Your task to perform on an android device: turn vacation reply on in the gmail app Image 0: 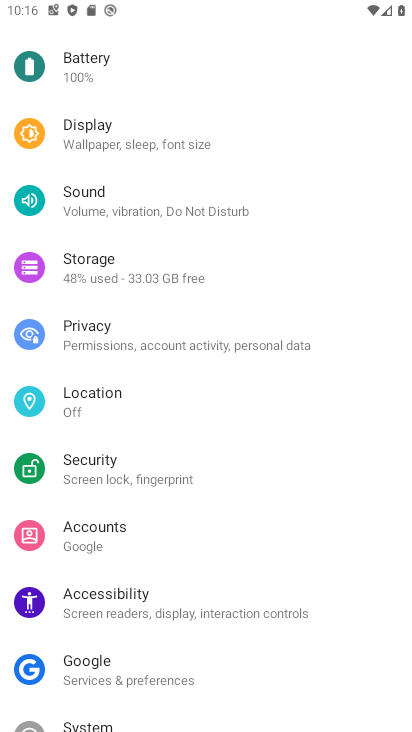
Step 0: press home button
Your task to perform on an android device: turn vacation reply on in the gmail app Image 1: 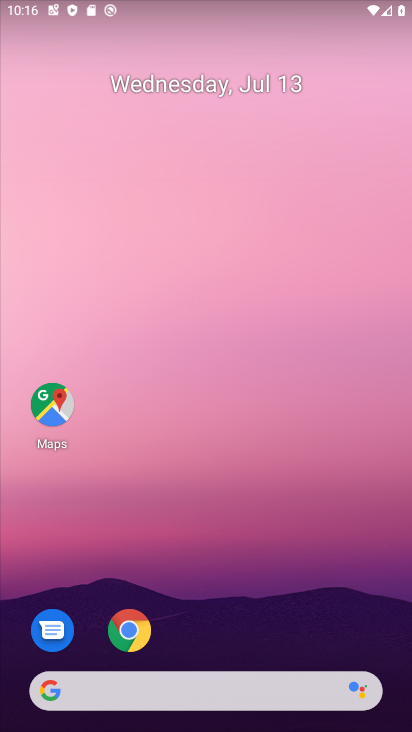
Step 1: drag from (308, 612) to (286, 12)
Your task to perform on an android device: turn vacation reply on in the gmail app Image 2: 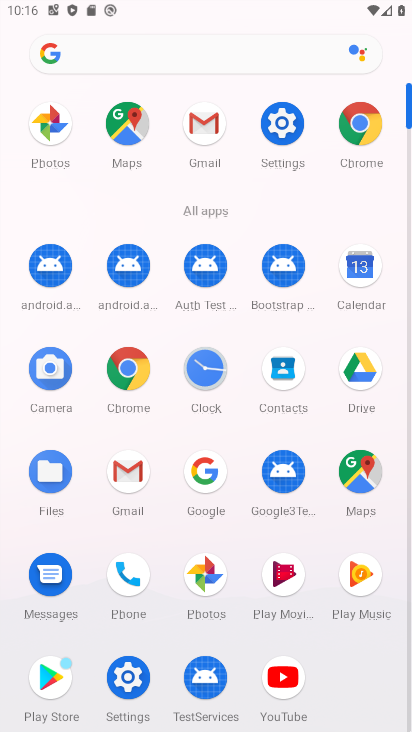
Step 2: click (200, 124)
Your task to perform on an android device: turn vacation reply on in the gmail app Image 3: 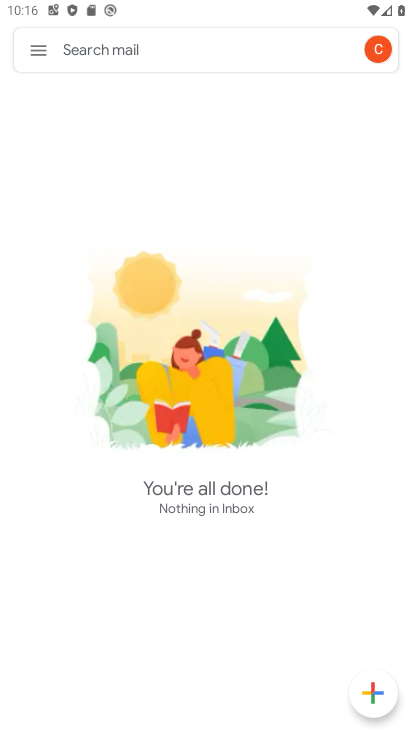
Step 3: click (41, 56)
Your task to perform on an android device: turn vacation reply on in the gmail app Image 4: 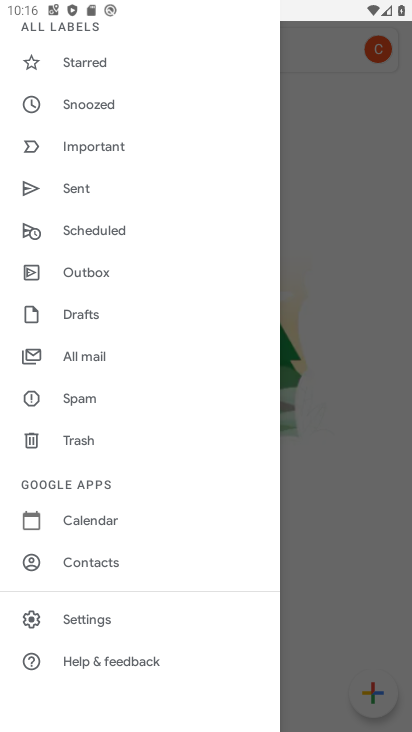
Step 4: click (91, 616)
Your task to perform on an android device: turn vacation reply on in the gmail app Image 5: 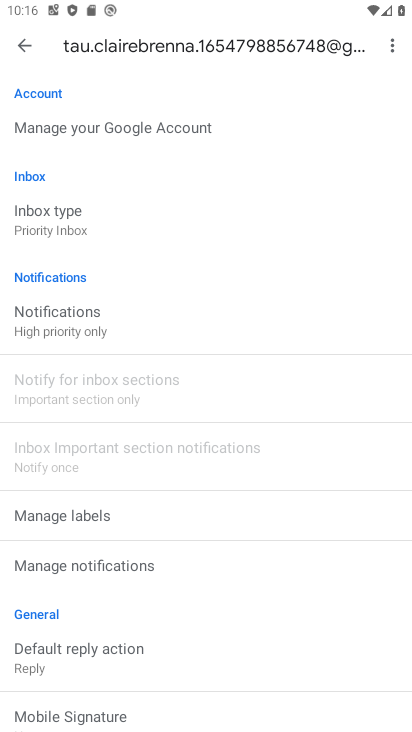
Step 5: drag from (179, 696) to (150, 243)
Your task to perform on an android device: turn vacation reply on in the gmail app Image 6: 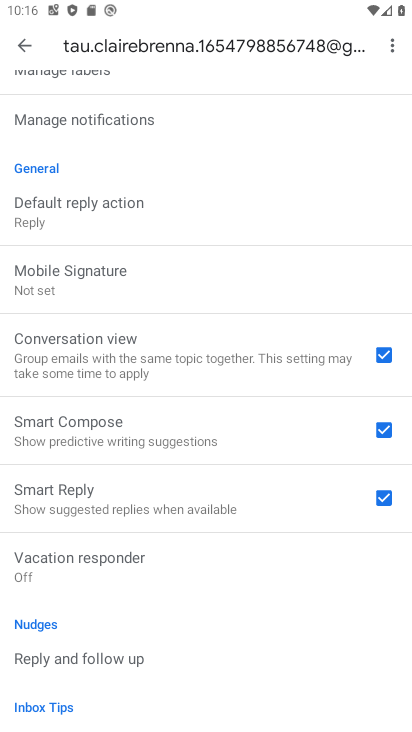
Step 6: click (70, 552)
Your task to perform on an android device: turn vacation reply on in the gmail app Image 7: 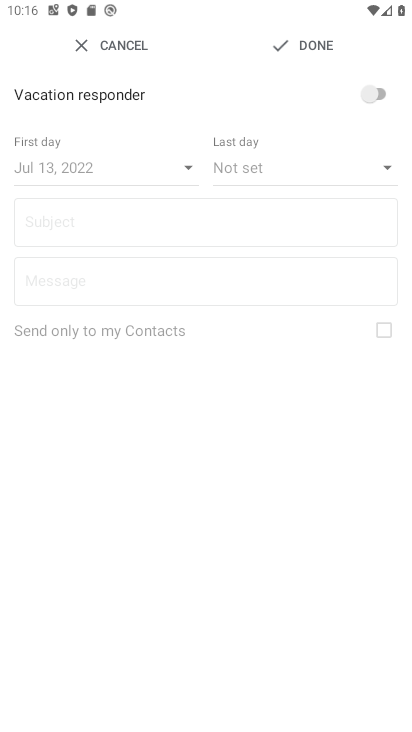
Step 7: click (363, 89)
Your task to perform on an android device: turn vacation reply on in the gmail app Image 8: 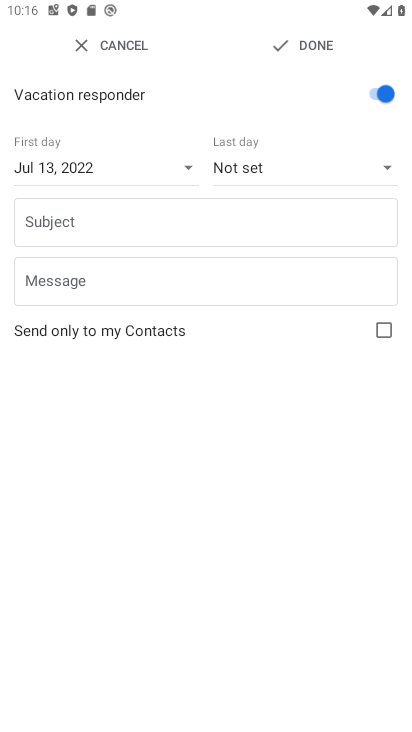
Step 8: task complete